Your task to perform on an android device: turn on the 24-hour format for clock Image 0: 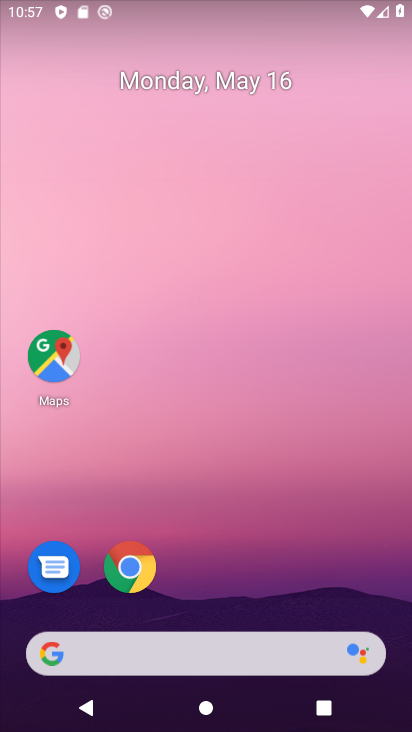
Step 0: drag from (232, 528) to (227, 100)
Your task to perform on an android device: turn on the 24-hour format for clock Image 1: 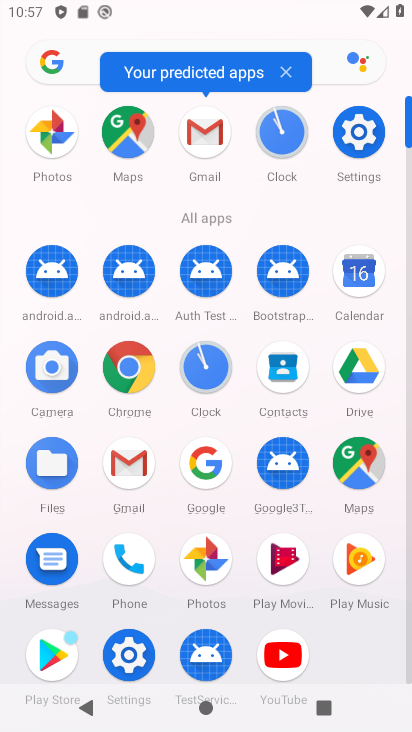
Step 1: click (278, 146)
Your task to perform on an android device: turn on the 24-hour format for clock Image 2: 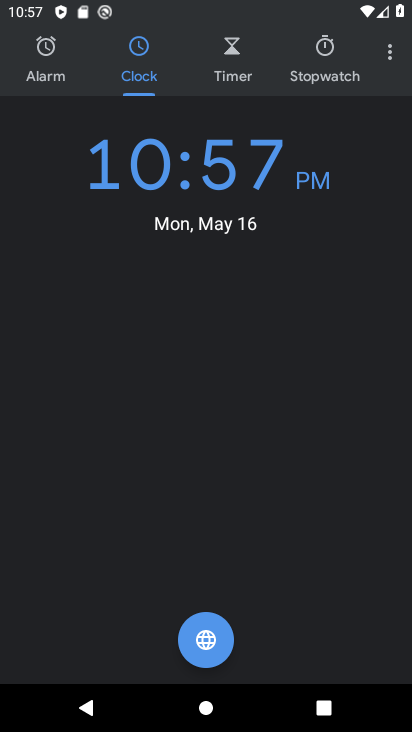
Step 2: click (392, 51)
Your task to perform on an android device: turn on the 24-hour format for clock Image 3: 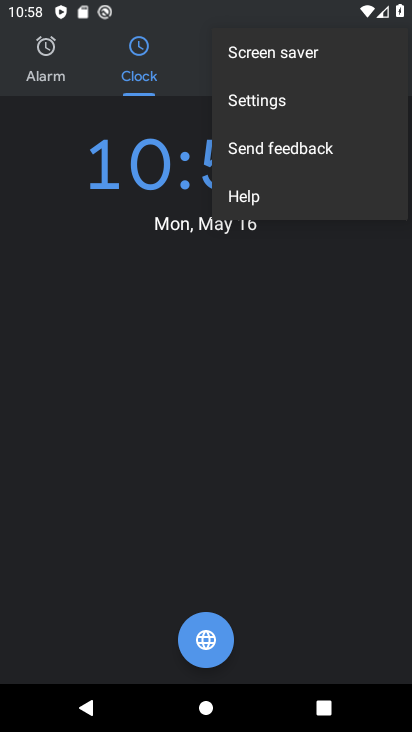
Step 3: click (264, 95)
Your task to perform on an android device: turn on the 24-hour format for clock Image 4: 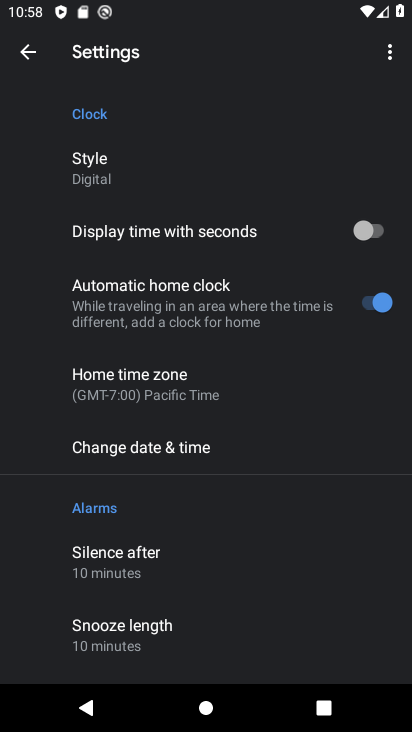
Step 4: click (178, 441)
Your task to perform on an android device: turn on the 24-hour format for clock Image 5: 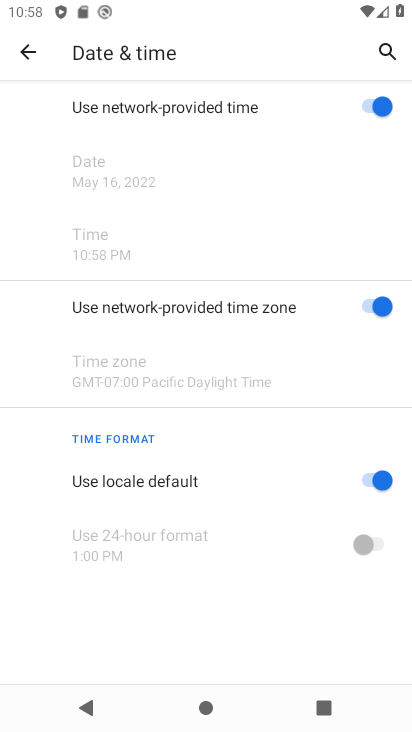
Step 5: click (377, 474)
Your task to perform on an android device: turn on the 24-hour format for clock Image 6: 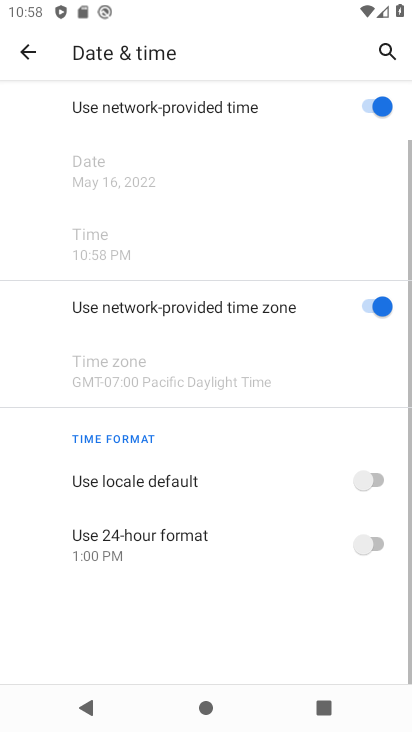
Step 6: click (363, 548)
Your task to perform on an android device: turn on the 24-hour format for clock Image 7: 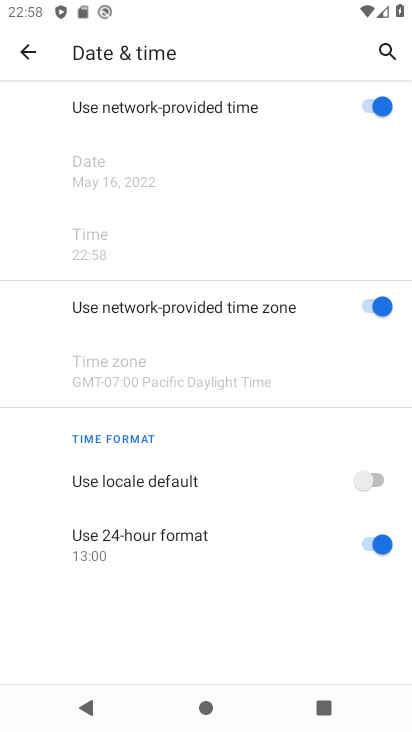
Step 7: task complete